Your task to perform on an android device: Set the phone to "Do not disturb". Image 0: 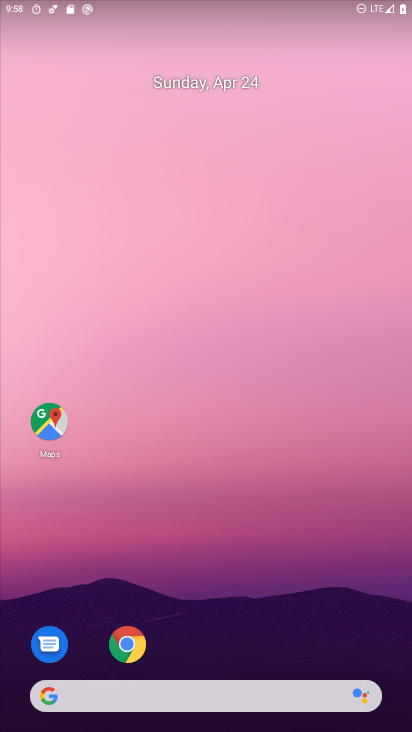
Step 0: drag from (198, 666) to (220, 9)
Your task to perform on an android device: Set the phone to "Do not disturb". Image 1: 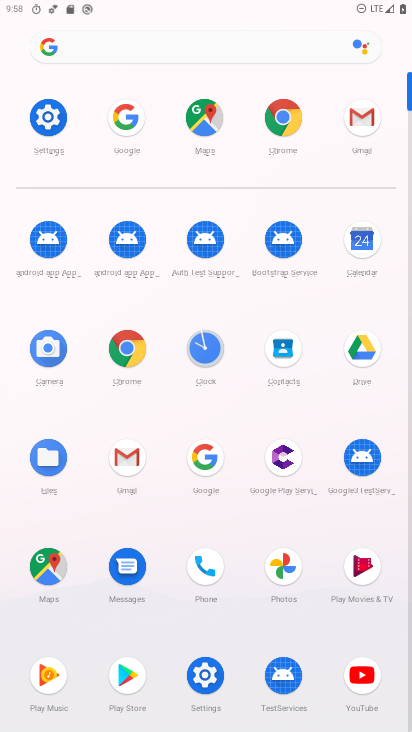
Step 1: task complete